Your task to perform on an android device: turn pop-ups off in chrome Image 0: 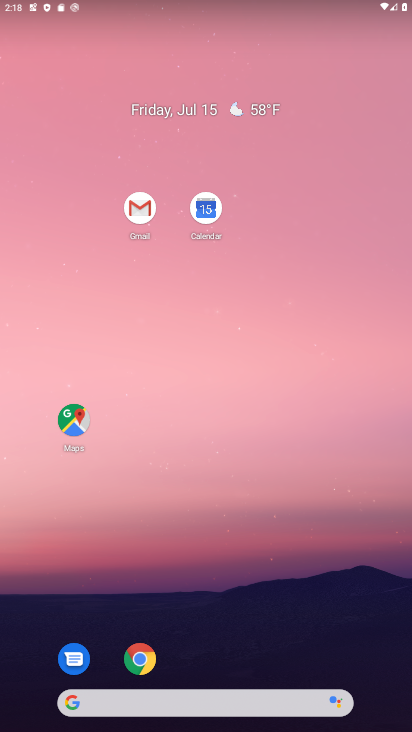
Step 0: click (147, 661)
Your task to perform on an android device: turn pop-ups off in chrome Image 1: 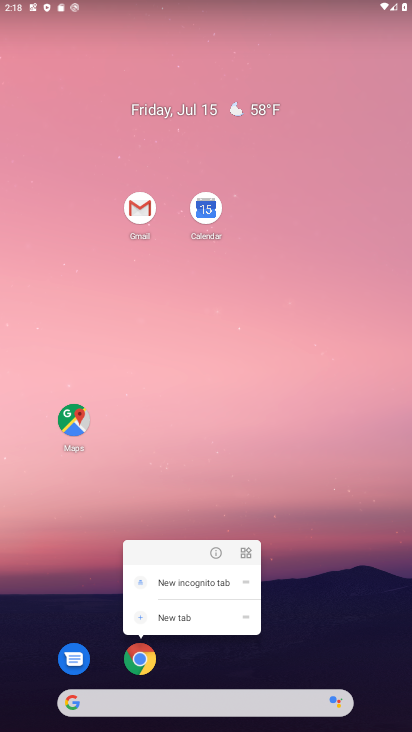
Step 1: click (147, 660)
Your task to perform on an android device: turn pop-ups off in chrome Image 2: 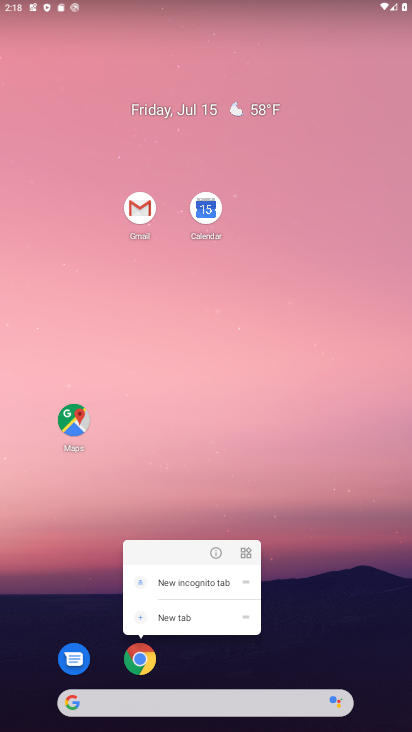
Step 2: click (147, 660)
Your task to perform on an android device: turn pop-ups off in chrome Image 3: 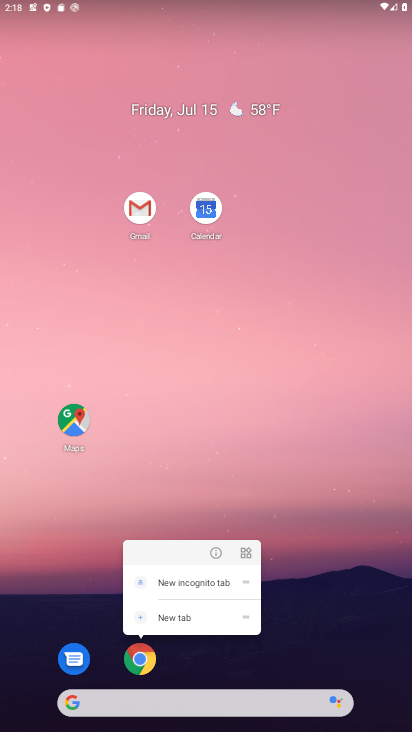
Step 3: click (147, 661)
Your task to perform on an android device: turn pop-ups off in chrome Image 4: 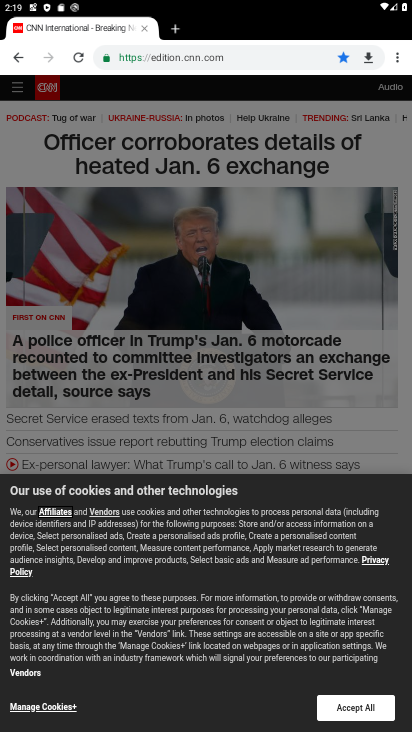
Step 4: click (401, 55)
Your task to perform on an android device: turn pop-ups off in chrome Image 5: 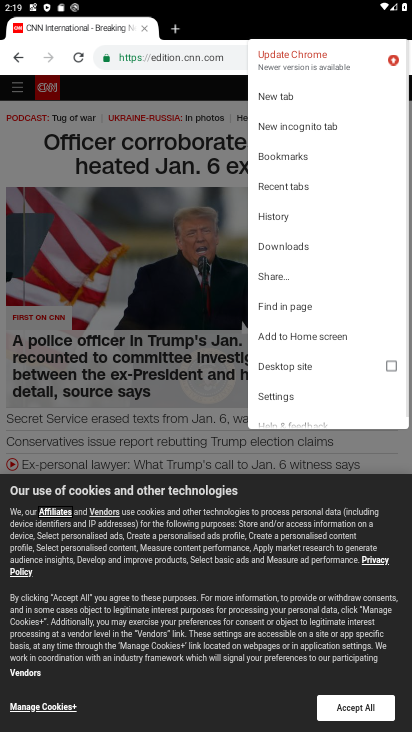
Step 5: click (296, 393)
Your task to perform on an android device: turn pop-ups off in chrome Image 6: 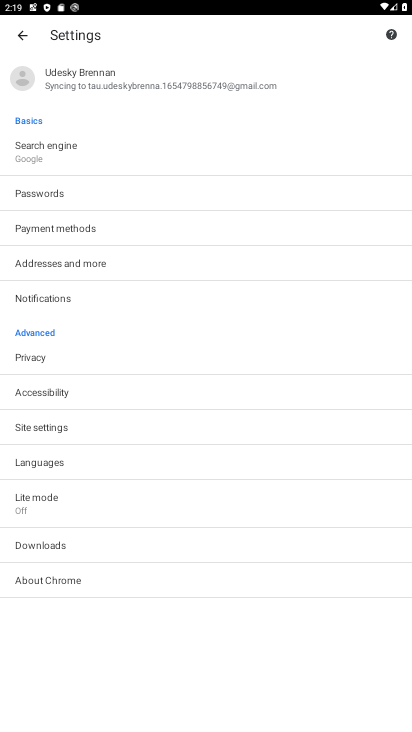
Step 6: click (99, 431)
Your task to perform on an android device: turn pop-ups off in chrome Image 7: 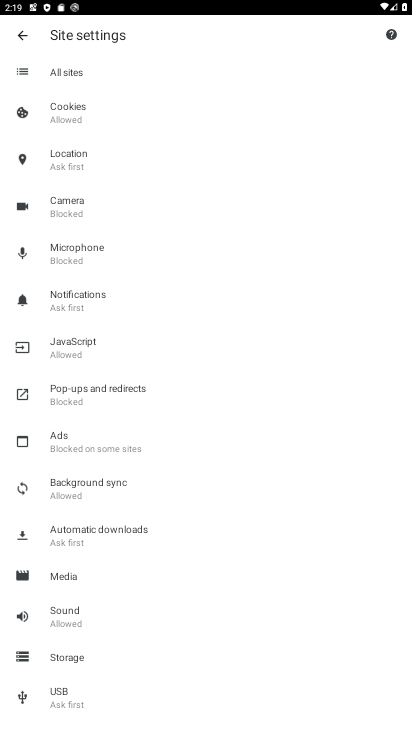
Step 7: click (104, 394)
Your task to perform on an android device: turn pop-ups off in chrome Image 8: 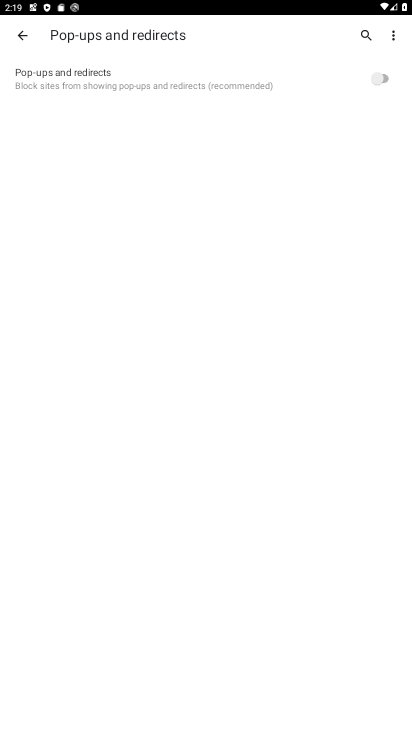
Step 8: task complete